Your task to perform on an android device: Open the calendar app, open the side menu, and click the "Day" option Image 0: 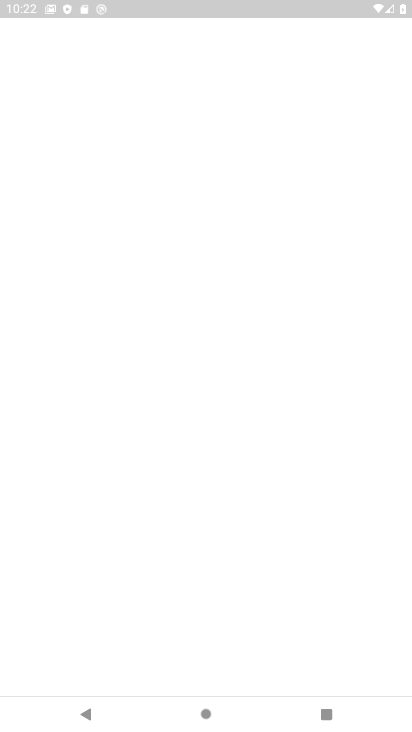
Step 0: drag from (274, 656) to (137, 126)
Your task to perform on an android device: Open the calendar app, open the side menu, and click the "Day" option Image 1: 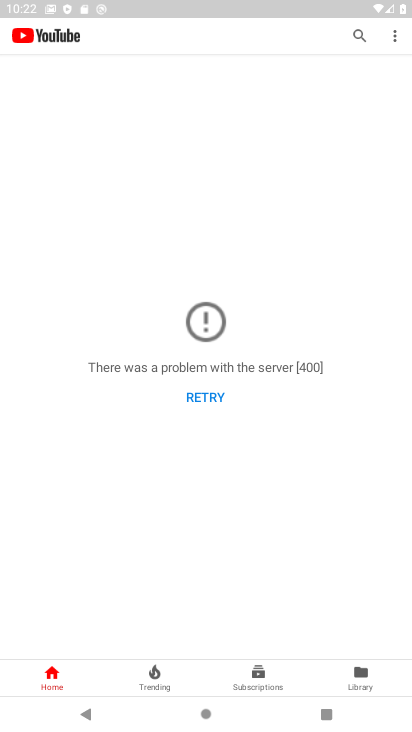
Step 1: drag from (231, 524) to (169, 126)
Your task to perform on an android device: Open the calendar app, open the side menu, and click the "Day" option Image 2: 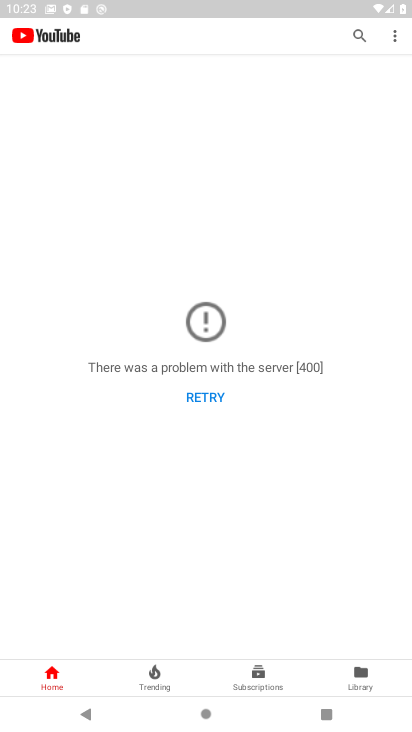
Step 2: press back button
Your task to perform on an android device: Open the calendar app, open the side menu, and click the "Day" option Image 3: 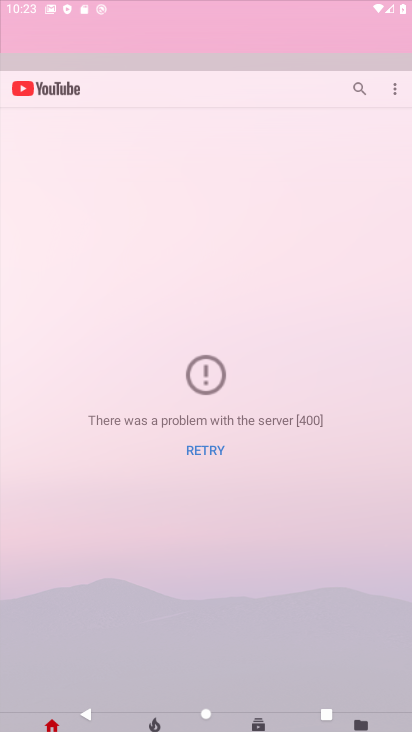
Step 3: press back button
Your task to perform on an android device: Open the calendar app, open the side menu, and click the "Day" option Image 4: 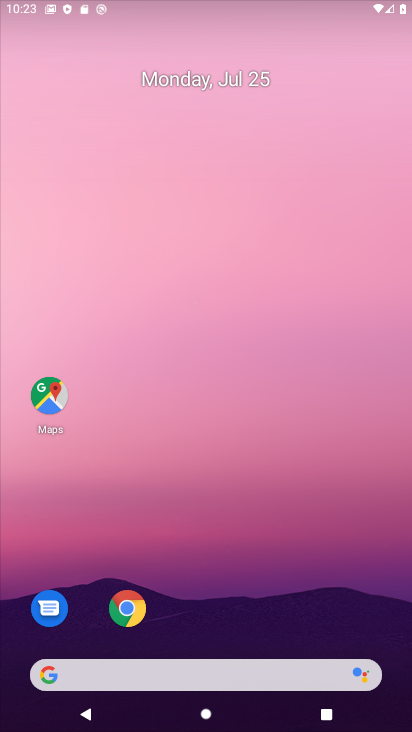
Step 4: press back button
Your task to perform on an android device: Open the calendar app, open the side menu, and click the "Day" option Image 5: 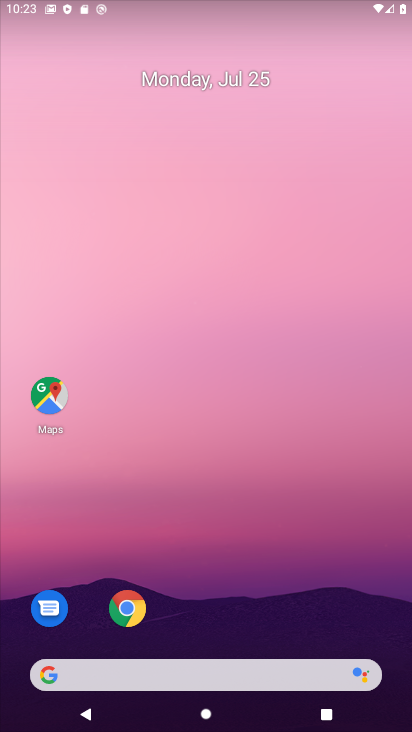
Step 5: click (146, 146)
Your task to perform on an android device: Open the calendar app, open the side menu, and click the "Day" option Image 6: 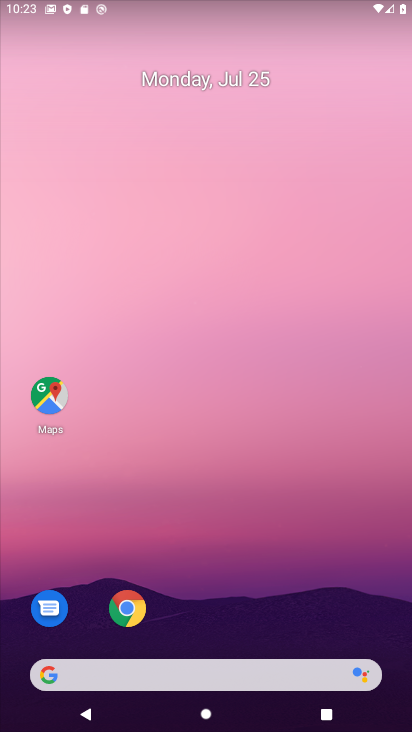
Step 6: drag from (288, 573) to (253, 313)
Your task to perform on an android device: Open the calendar app, open the side menu, and click the "Day" option Image 7: 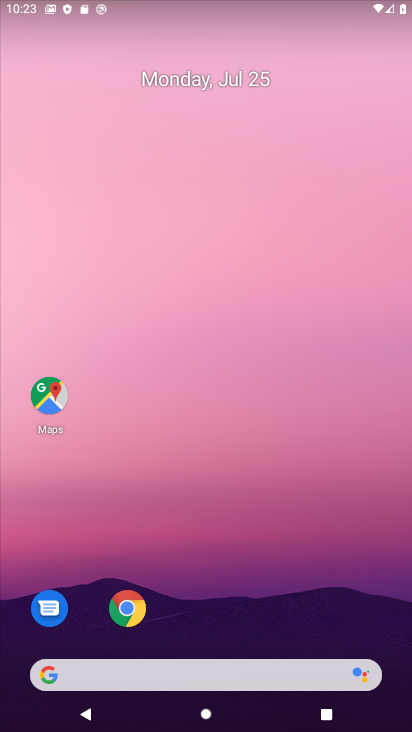
Step 7: drag from (178, 576) to (85, 191)
Your task to perform on an android device: Open the calendar app, open the side menu, and click the "Day" option Image 8: 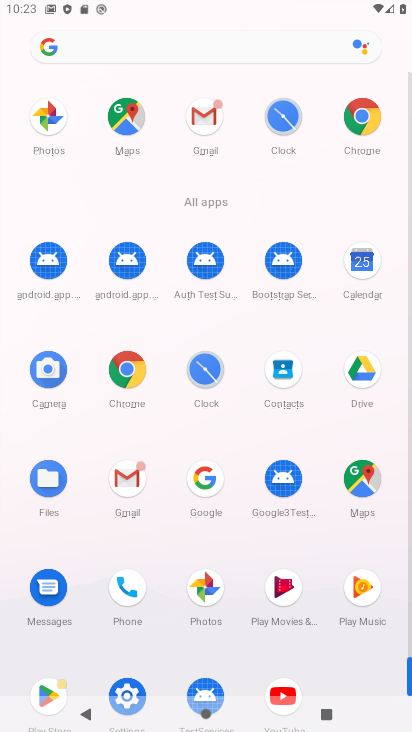
Step 8: drag from (218, 623) to (125, 170)
Your task to perform on an android device: Open the calendar app, open the side menu, and click the "Day" option Image 9: 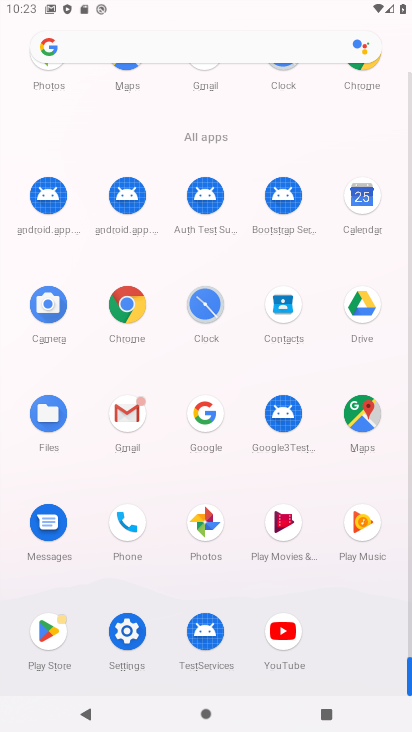
Step 9: click (350, 200)
Your task to perform on an android device: Open the calendar app, open the side menu, and click the "Day" option Image 10: 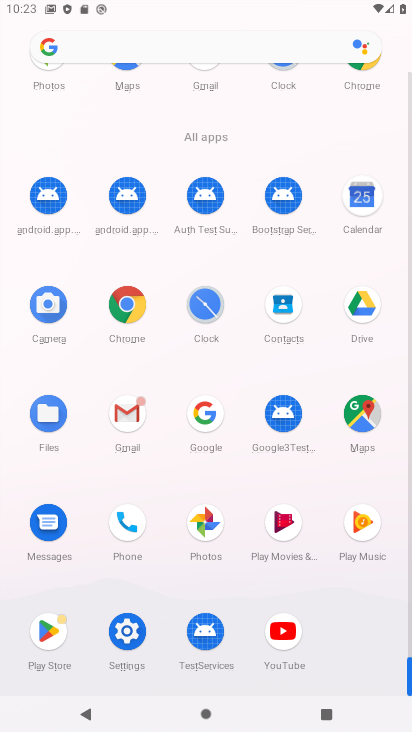
Step 10: click (367, 203)
Your task to perform on an android device: Open the calendar app, open the side menu, and click the "Day" option Image 11: 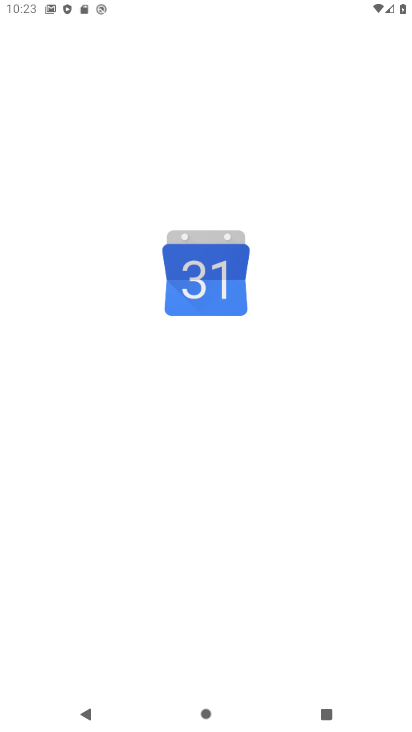
Step 11: click (353, 205)
Your task to perform on an android device: Open the calendar app, open the side menu, and click the "Day" option Image 12: 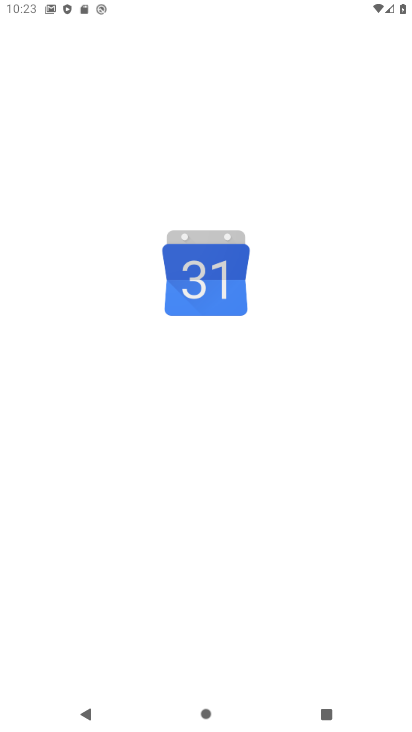
Step 12: click (354, 206)
Your task to perform on an android device: Open the calendar app, open the side menu, and click the "Day" option Image 13: 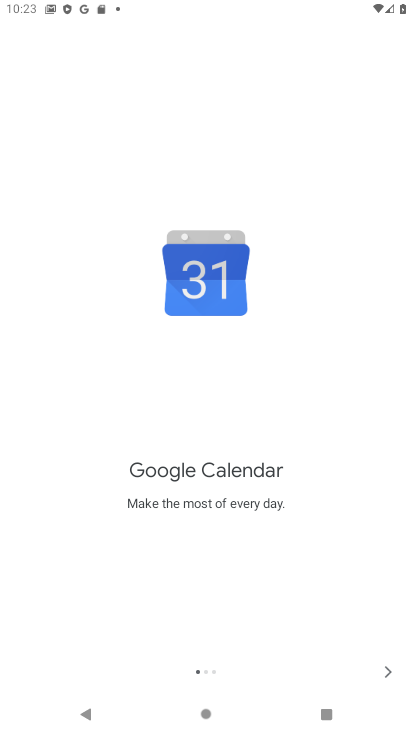
Step 13: click (393, 673)
Your task to perform on an android device: Open the calendar app, open the side menu, and click the "Day" option Image 14: 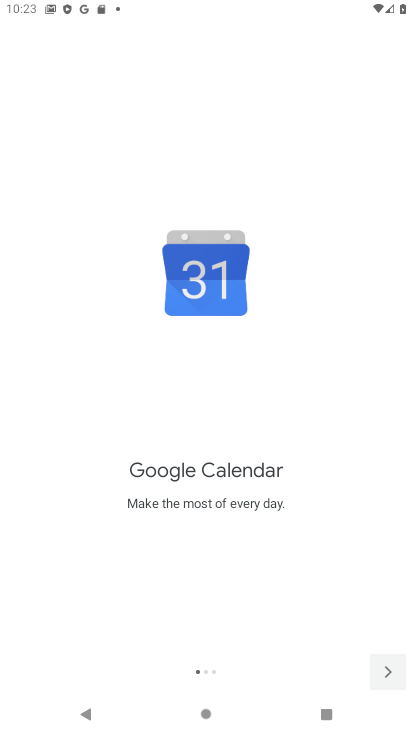
Step 14: click (387, 674)
Your task to perform on an android device: Open the calendar app, open the side menu, and click the "Day" option Image 15: 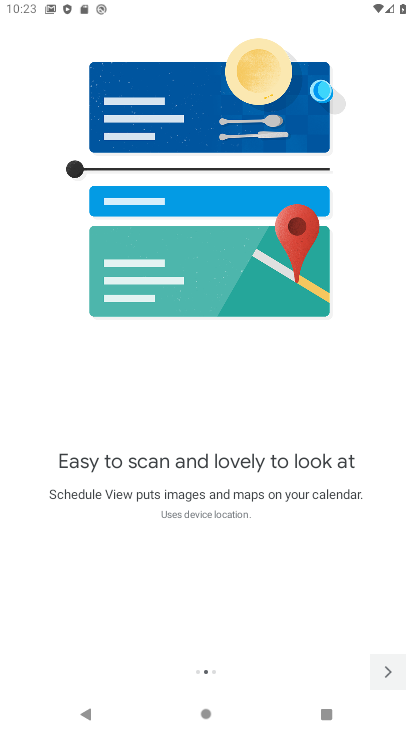
Step 15: click (385, 674)
Your task to perform on an android device: Open the calendar app, open the side menu, and click the "Day" option Image 16: 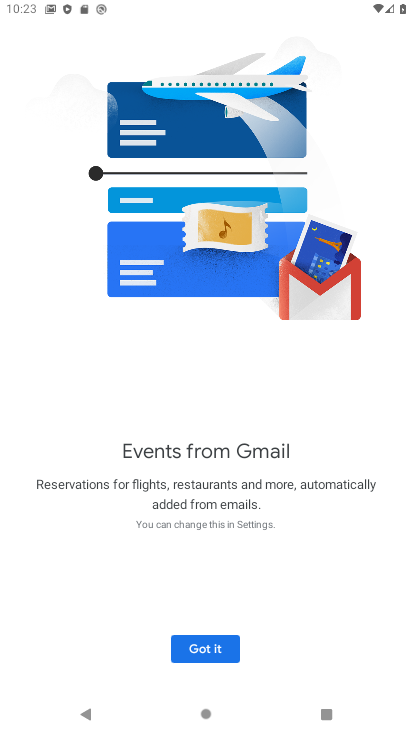
Step 16: click (390, 675)
Your task to perform on an android device: Open the calendar app, open the side menu, and click the "Day" option Image 17: 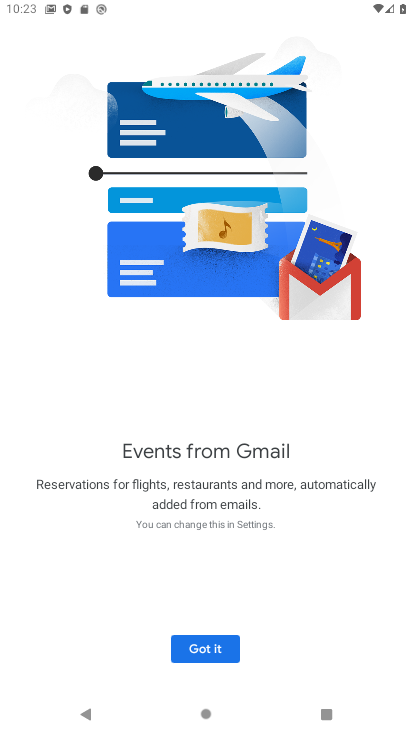
Step 17: click (231, 661)
Your task to perform on an android device: Open the calendar app, open the side menu, and click the "Day" option Image 18: 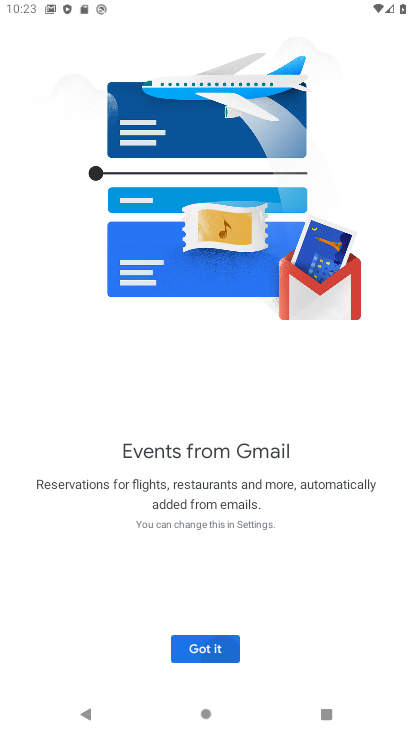
Step 18: click (227, 653)
Your task to perform on an android device: Open the calendar app, open the side menu, and click the "Day" option Image 19: 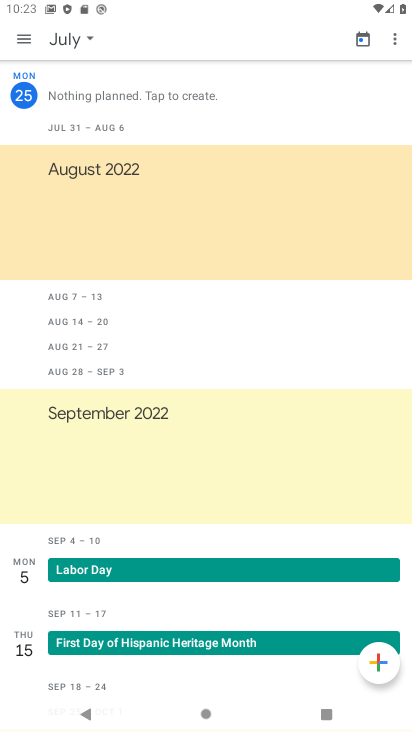
Step 19: click (24, 35)
Your task to perform on an android device: Open the calendar app, open the side menu, and click the "Day" option Image 20: 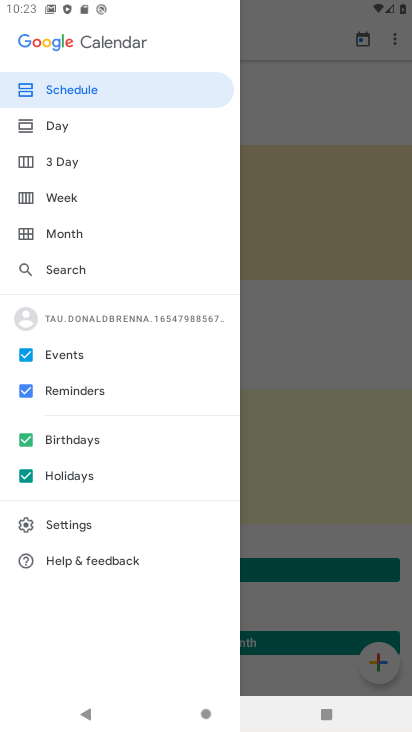
Step 20: click (21, 38)
Your task to perform on an android device: Open the calendar app, open the side menu, and click the "Day" option Image 21: 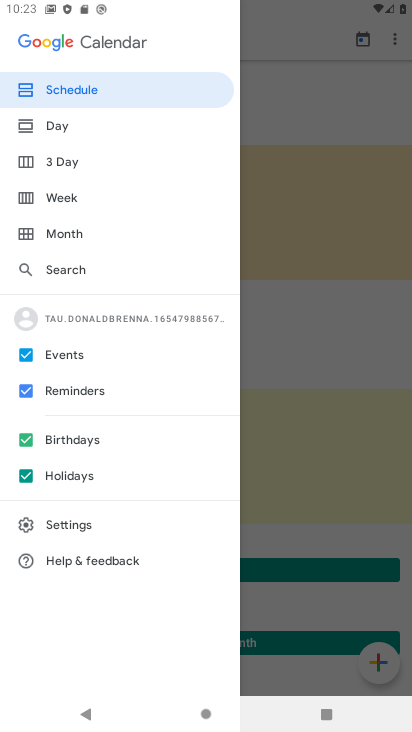
Step 21: click (20, 37)
Your task to perform on an android device: Open the calendar app, open the side menu, and click the "Day" option Image 22: 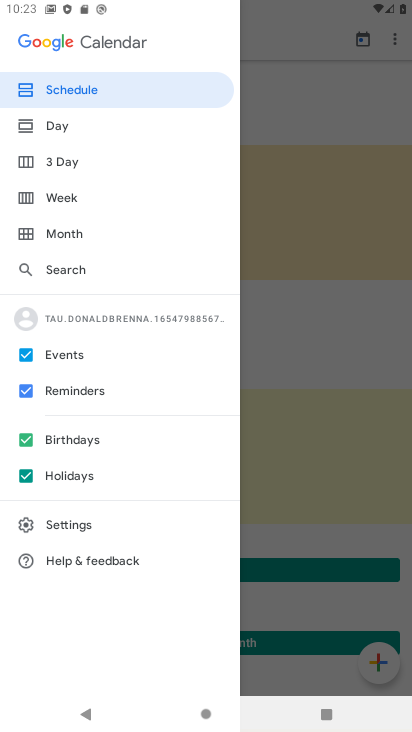
Step 22: click (44, 121)
Your task to perform on an android device: Open the calendar app, open the side menu, and click the "Day" option Image 23: 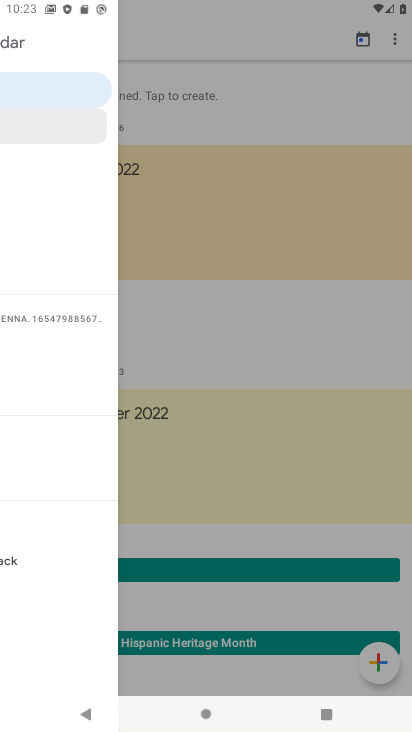
Step 23: click (45, 122)
Your task to perform on an android device: Open the calendar app, open the side menu, and click the "Day" option Image 24: 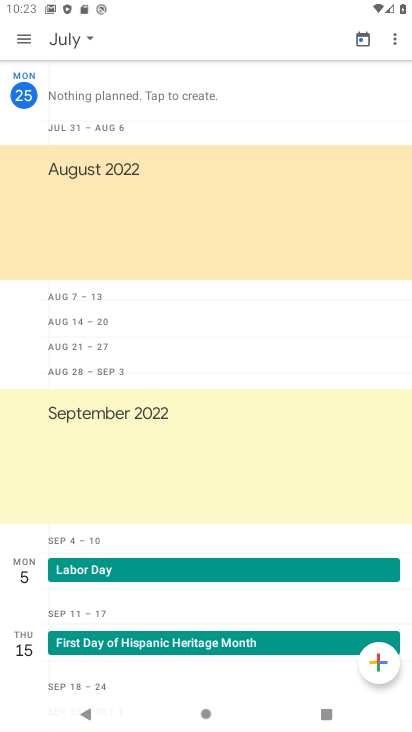
Step 24: click (43, 122)
Your task to perform on an android device: Open the calendar app, open the side menu, and click the "Day" option Image 25: 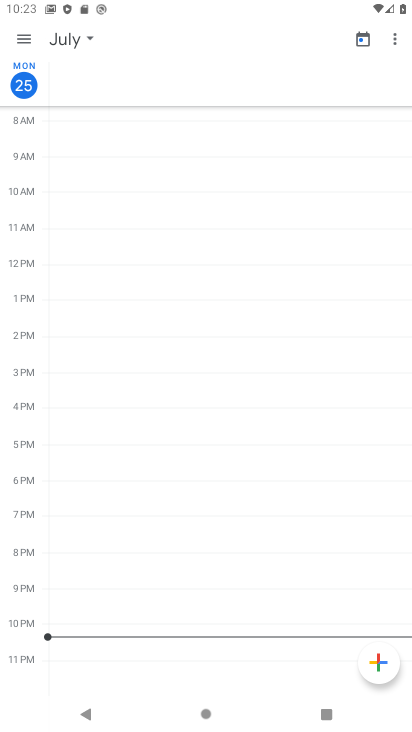
Step 25: click (97, 30)
Your task to perform on an android device: Open the calendar app, open the side menu, and click the "Day" option Image 26: 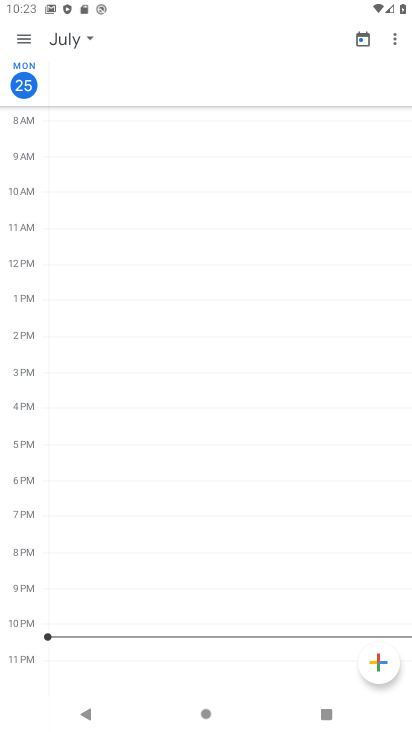
Step 26: click (94, 32)
Your task to perform on an android device: Open the calendar app, open the side menu, and click the "Day" option Image 27: 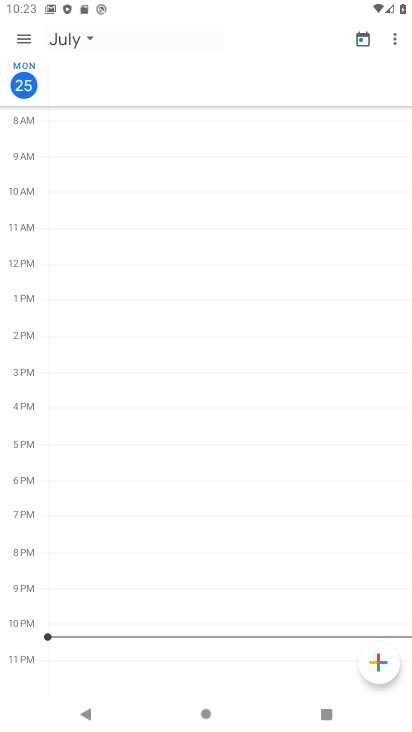
Step 27: click (94, 32)
Your task to perform on an android device: Open the calendar app, open the side menu, and click the "Day" option Image 28: 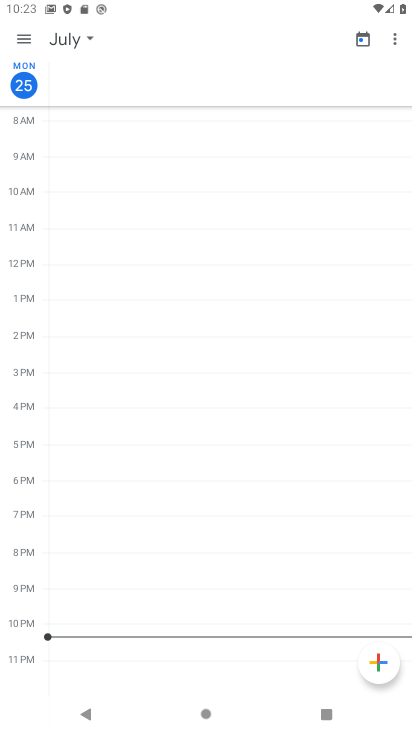
Step 28: click (32, 41)
Your task to perform on an android device: Open the calendar app, open the side menu, and click the "Day" option Image 29: 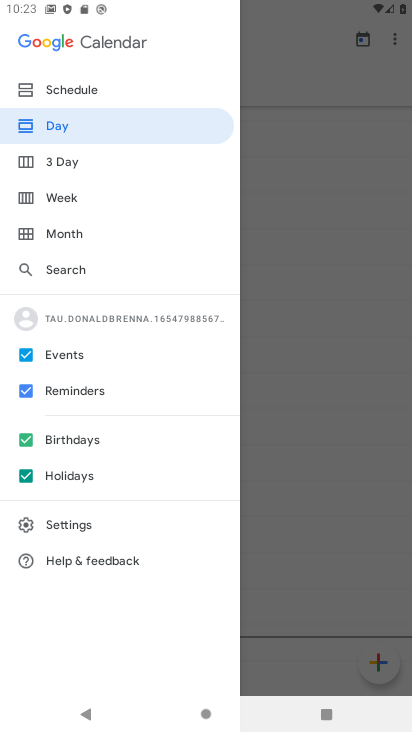
Step 29: click (55, 121)
Your task to perform on an android device: Open the calendar app, open the side menu, and click the "Day" option Image 30: 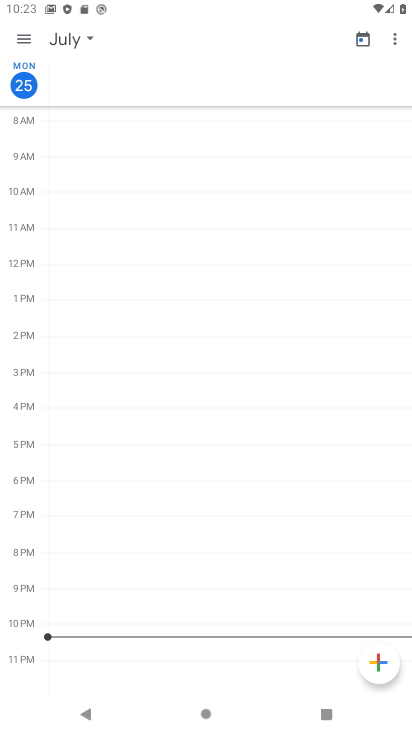
Step 30: task complete